Your task to perform on an android device: delete the emails in spam in the gmail app Image 0: 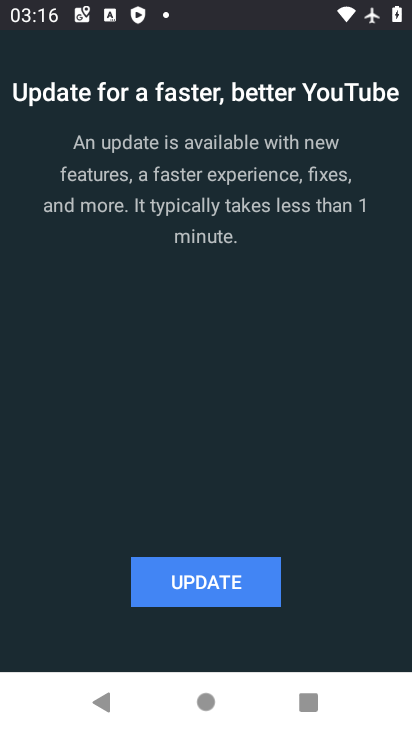
Step 0: press home button
Your task to perform on an android device: delete the emails in spam in the gmail app Image 1: 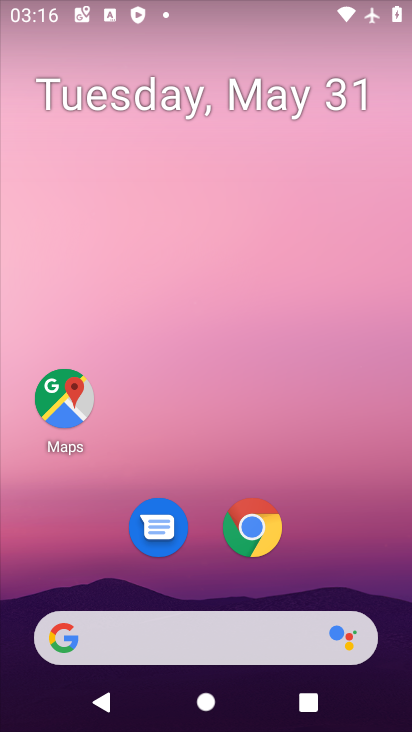
Step 1: drag from (406, 644) to (345, 169)
Your task to perform on an android device: delete the emails in spam in the gmail app Image 2: 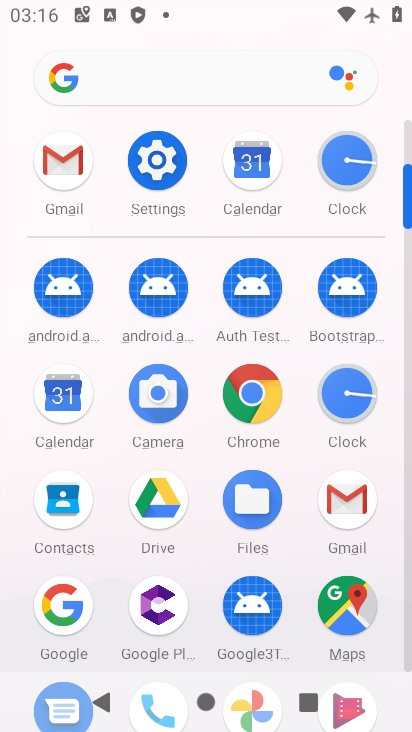
Step 2: click (344, 499)
Your task to perform on an android device: delete the emails in spam in the gmail app Image 3: 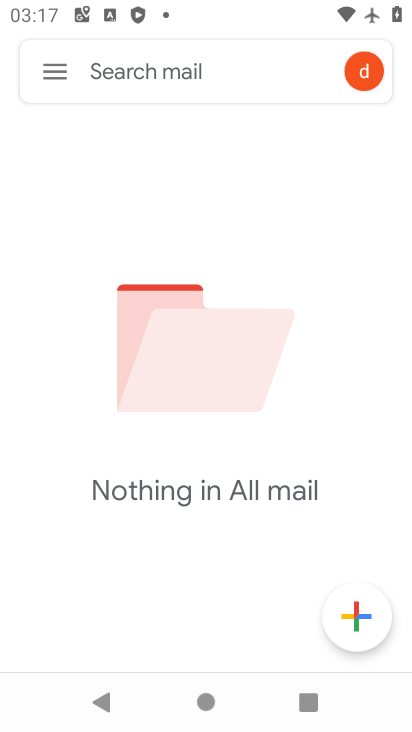
Step 3: click (54, 71)
Your task to perform on an android device: delete the emails in spam in the gmail app Image 4: 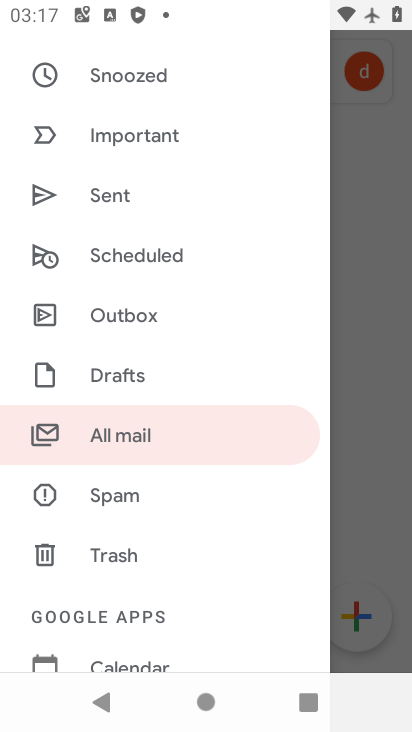
Step 4: click (149, 428)
Your task to perform on an android device: delete the emails in spam in the gmail app Image 5: 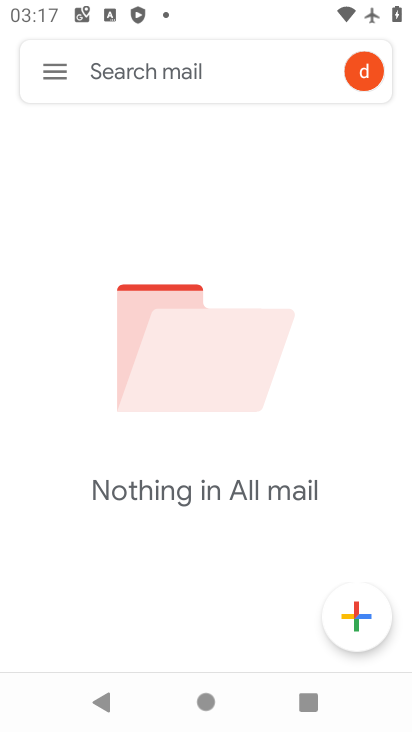
Step 5: click (46, 78)
Your task to perform on an android device: delete the emails in spam in the gmail app Image 6: 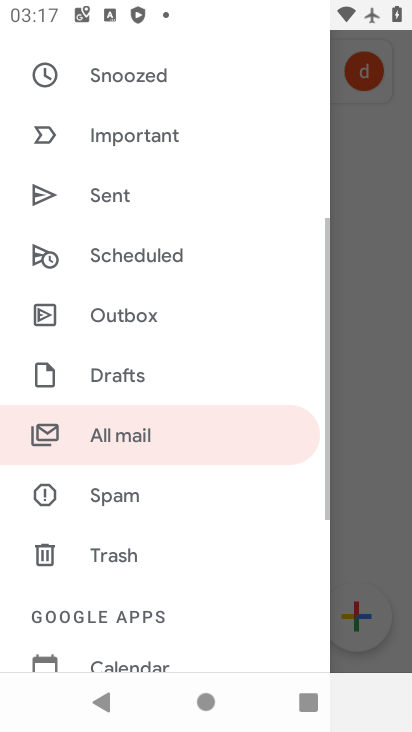
Step 6: click (119, 506)
Your task to perform on an android device: delete the emails in spam in the gmail app Image 7: 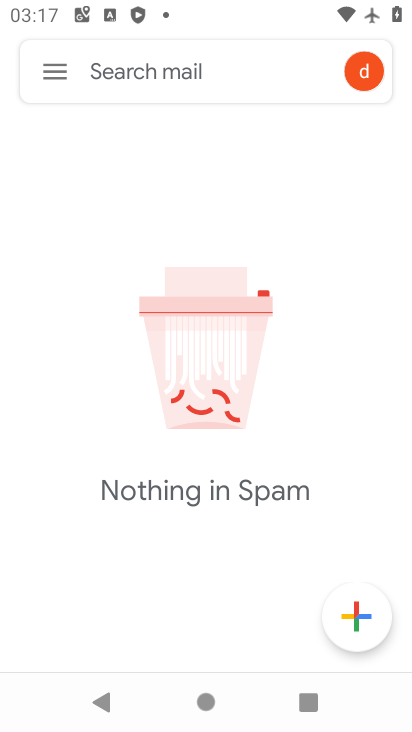
Step 7: task complete